Your task to perform on an android device: Open settings Image 0: 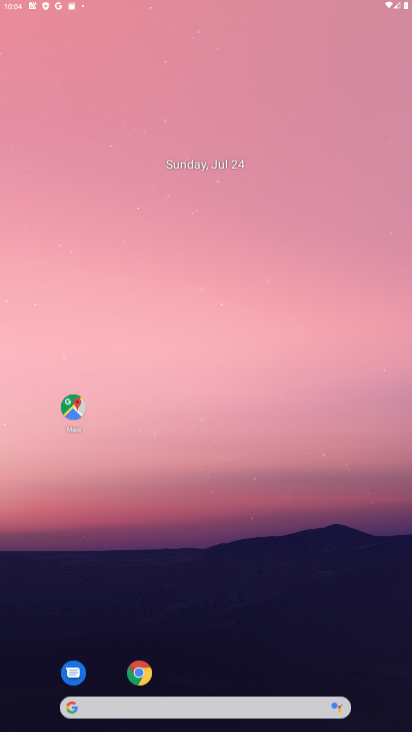
Step 0: click (234, 14)
Your task to perform on an android device: Open settings Image 1: 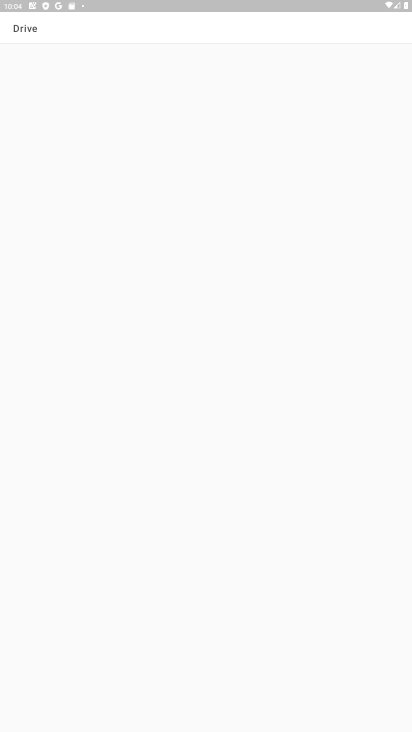
Step 1: press home button
Your task to perform on an android device: Open settings Image 2: 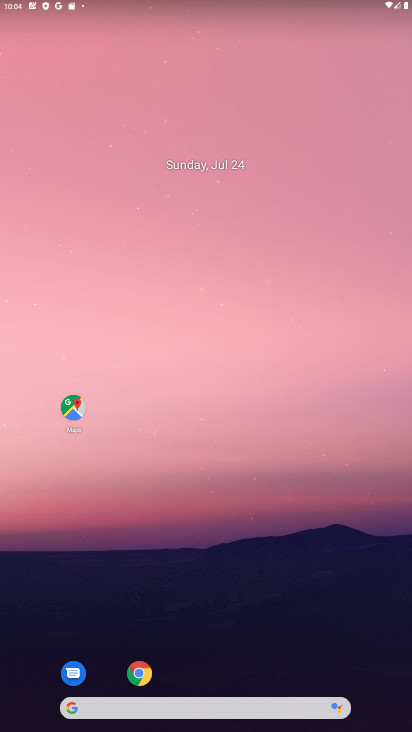
Step 2: drag from (33, 650) to (276, 96)
Your task to perform on an android device: Open settings Image 3: 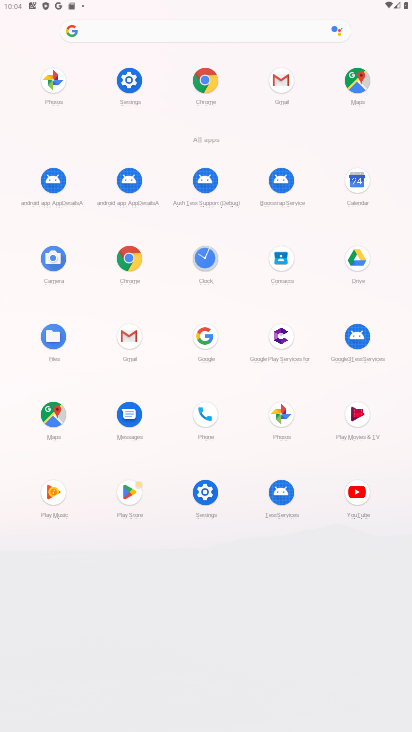
Step 3: click (193, 484)
Your task to perform on an android device: Open settings Image 4: 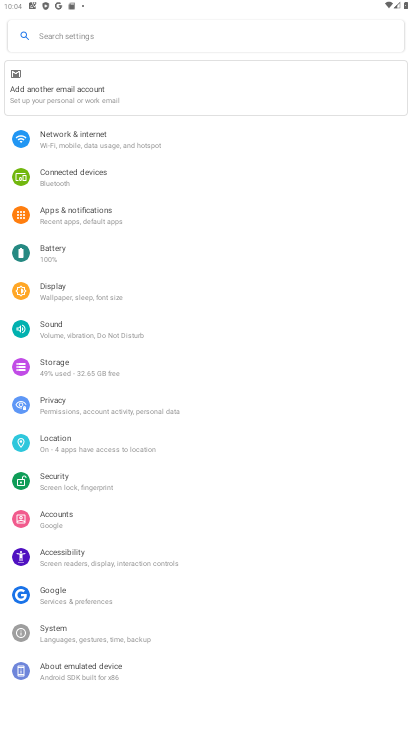
Step 4: task complete